Your task to perform on an android device: What is the news today? Image 0: 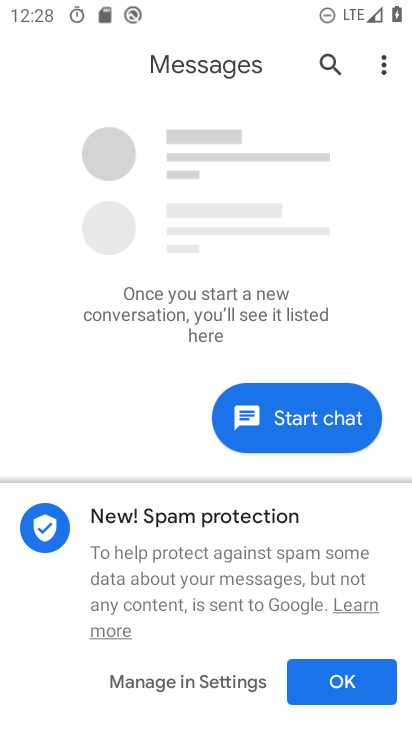
Step 0: drag from (210, 596) to (286, 116)
Your task to perform on an android device: What is the news today? Image 1: 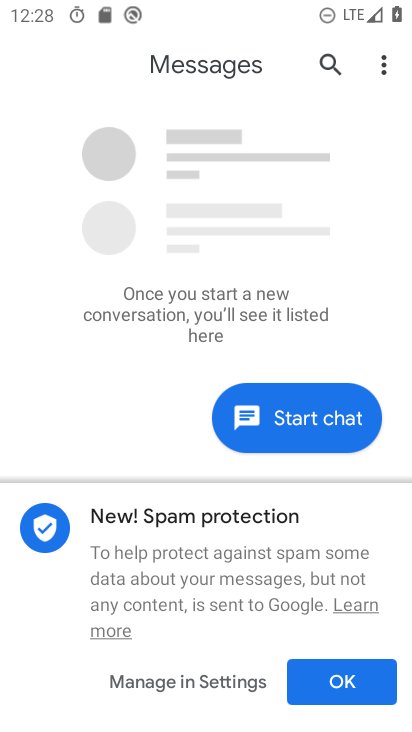
Step 1: press home button
Your task to perform on an android device: What is the news today? Image 2: 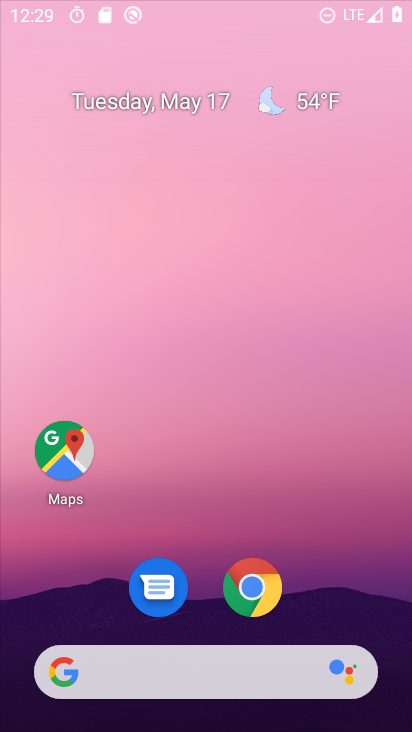
Step 2: drag from (245, 637) to (325, 150)
Your task to perform on an android device: What is the news today? Image 3: 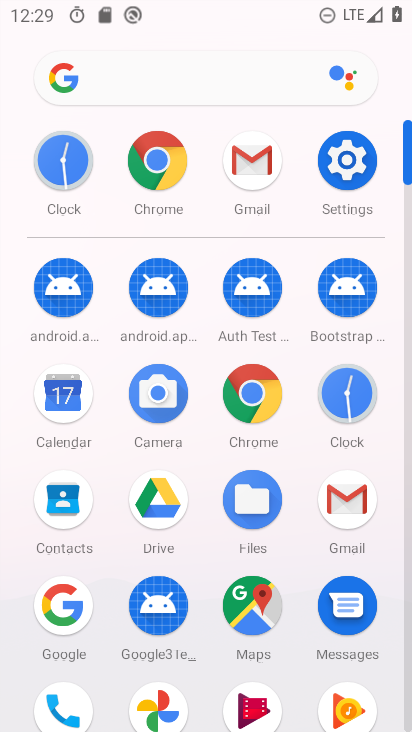
Step 3: drag from (206, 693) to (265, 141)
Your task to perform on an android device: What is the news today? Image 4: 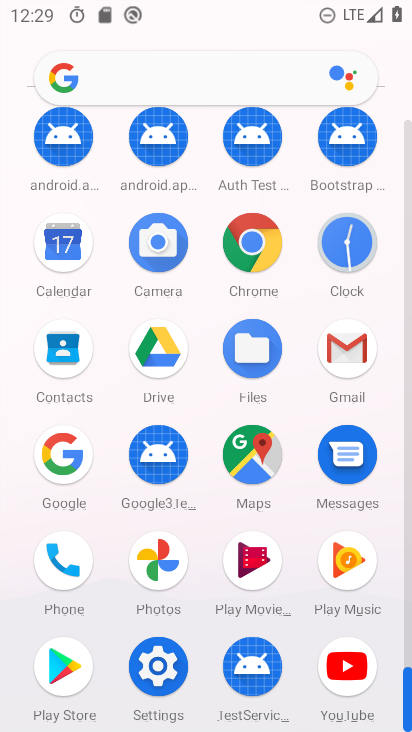
Step 4: click (222, 72)
Your task to perform on an android device: What is the news today? Image 5: 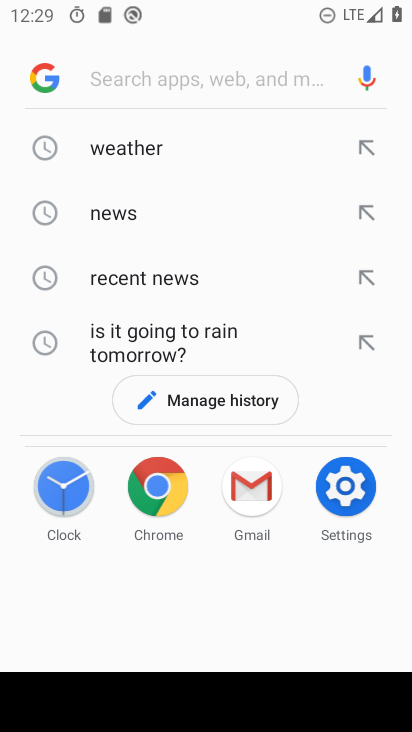
Step 5: type "news today"
Your task to perform on an android device: What is the news today? Image 6: 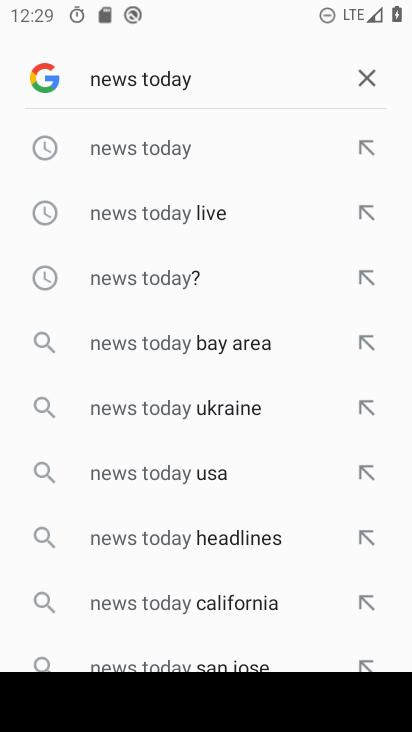
Step 6: click (166, 133)
Your task to perform on an android device: What is the news today? Image 7: 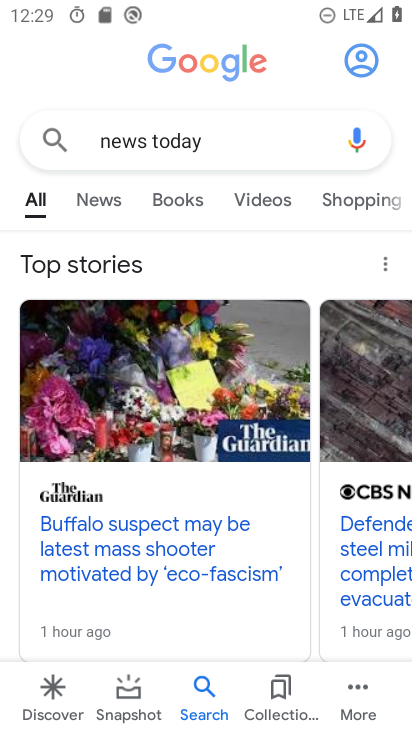
Step 7: task complete